Your task to perform on an android device: uninstall "Gboard" Image 0: 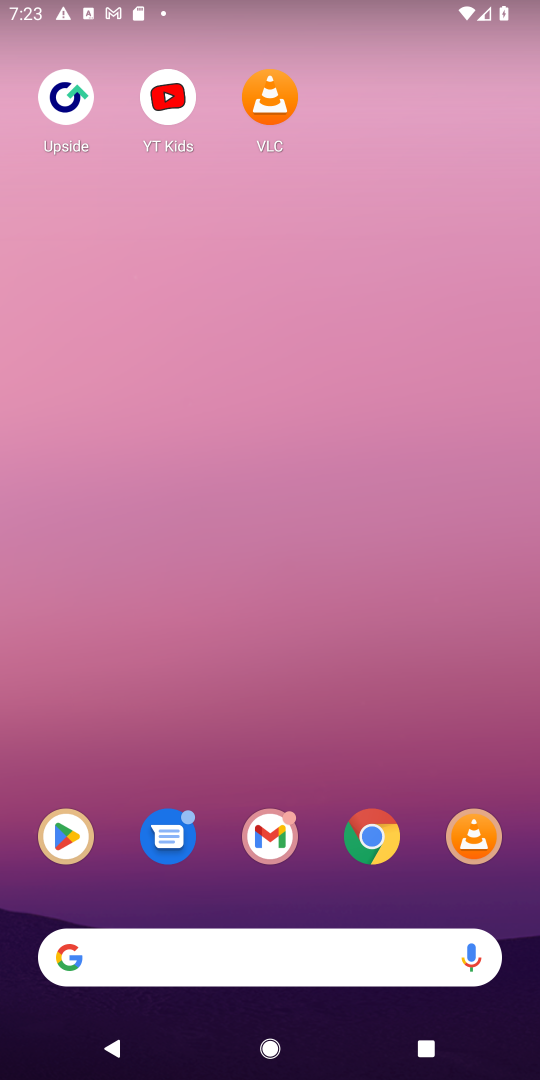
Step 0: press home button
Your task to perform on an android device: uninstall "Gboard" Image 1: 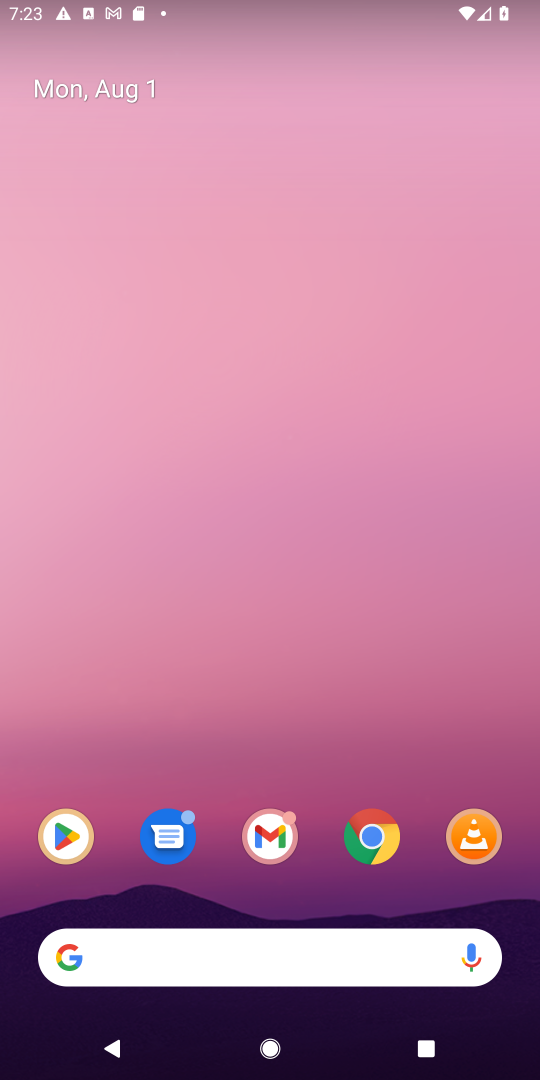
Step 1: click (79, 835)
Your task to perform on an android device: uninstall "Gboard" Image 2: 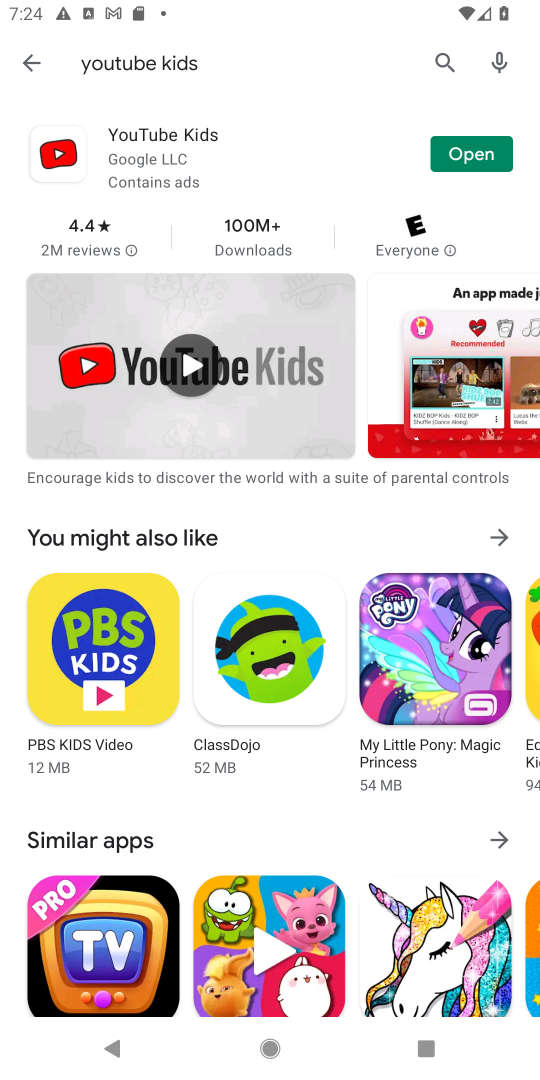
Step 2: click (440, 61)
Your task to perform on an android device: uninstall "Gboard" Image 3: 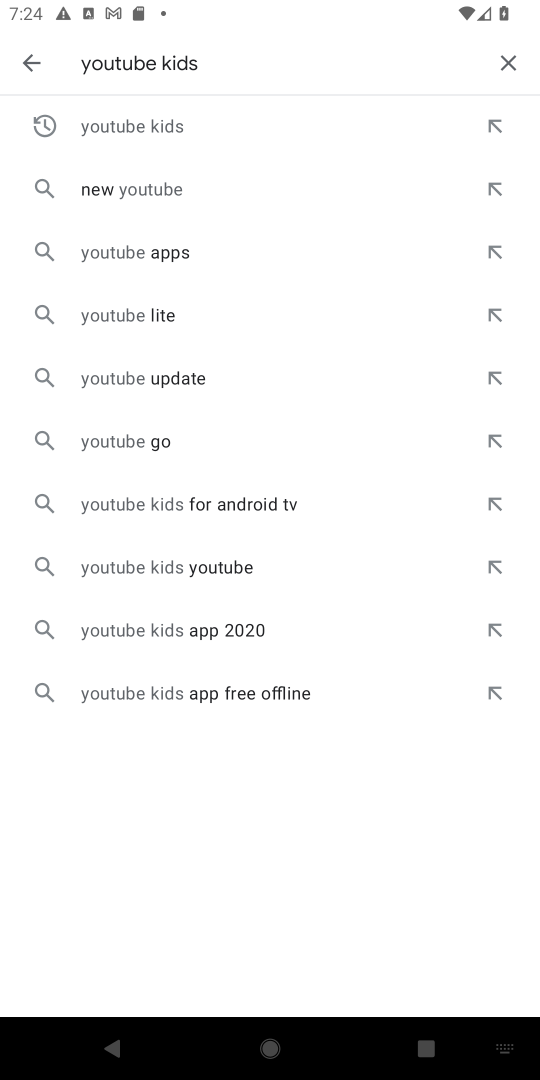
Step 3: click (506, 62)
Your task to perform on an android device: uninstall "Gboard" Image 4: 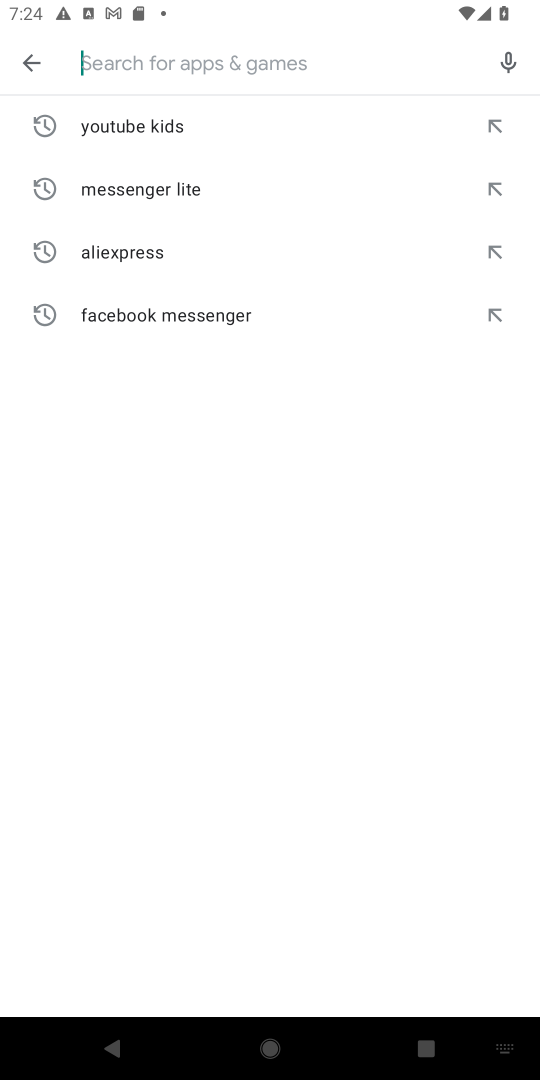
Step 4: type "Gboard"
Your task to perform on an android device: uninstall "Gboard" Image 5: 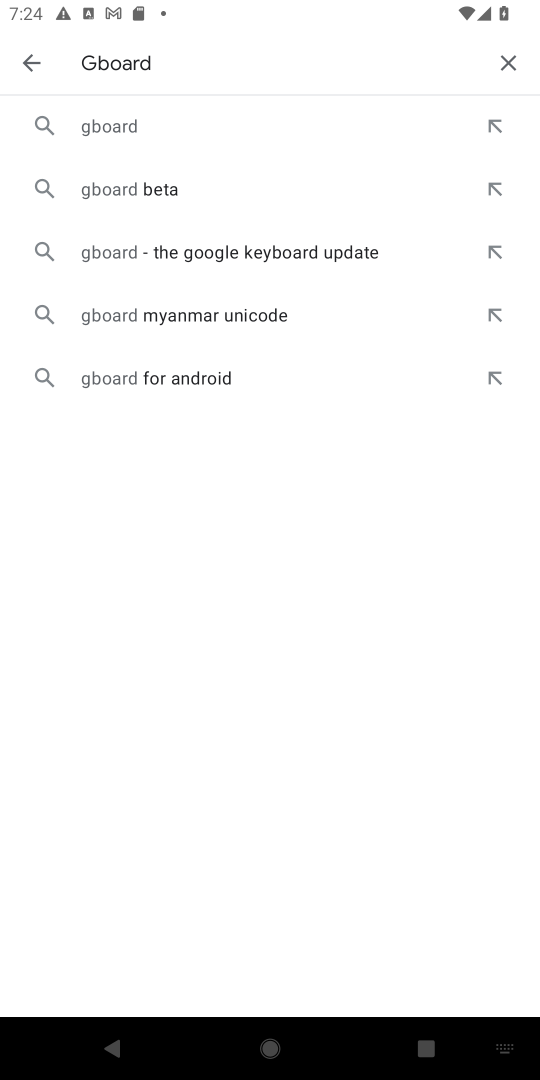
Step 5: click (121, 130)
Your task to perform on an android device: uninstall "Gboard" Image 6: 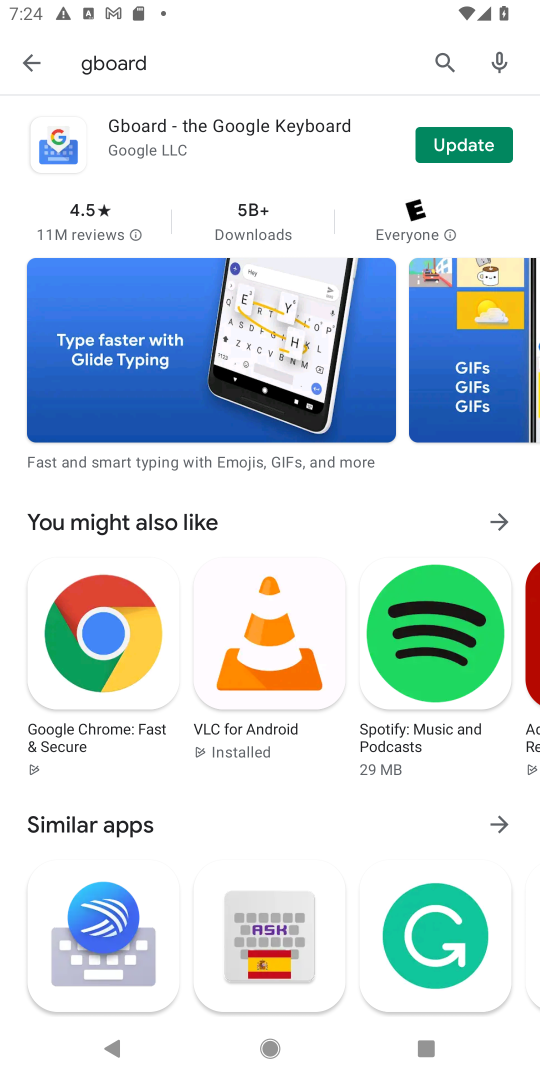
Step 6: click (116, 156)
Your task to perform on an android device: uninstall "Gboard" Image 7: 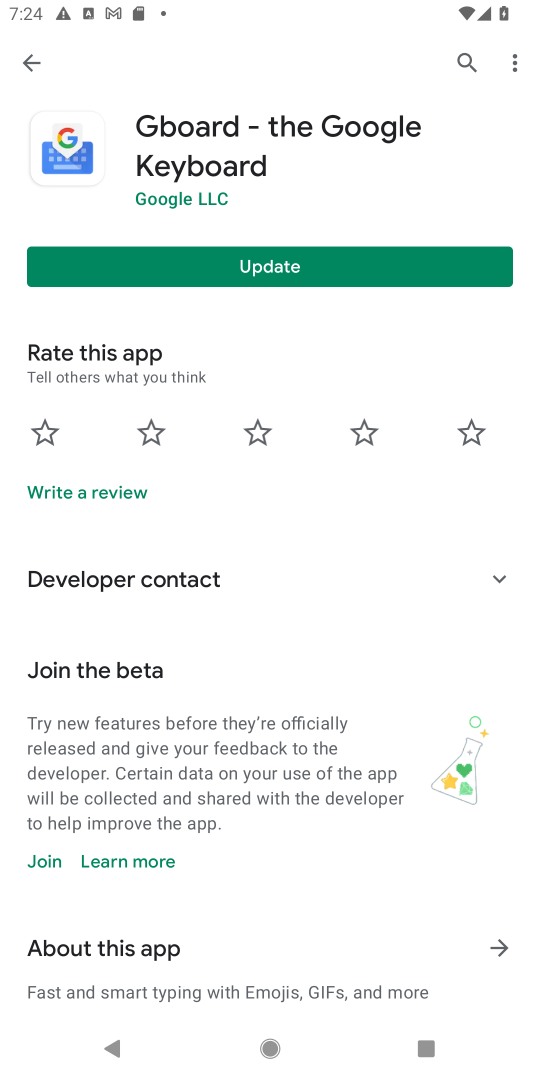
Step 7: task complete